Your task to perform on an android device: add a label to a message in the gmail app Image 0: 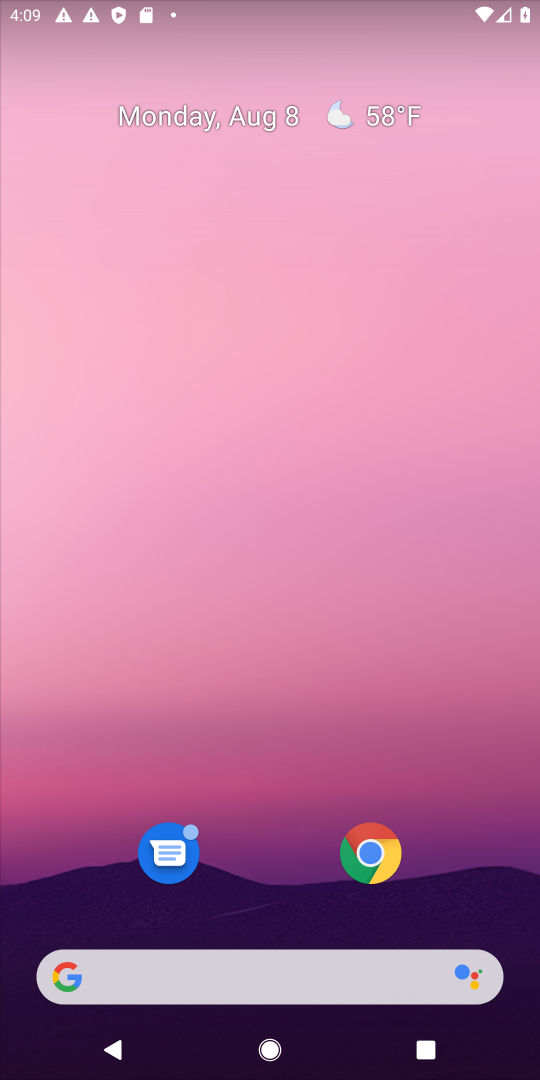
Step 0: drag from (473, 829) to (510, 24)
Your task to perform on an android device: add a label to a message in the gmail app Image 1: 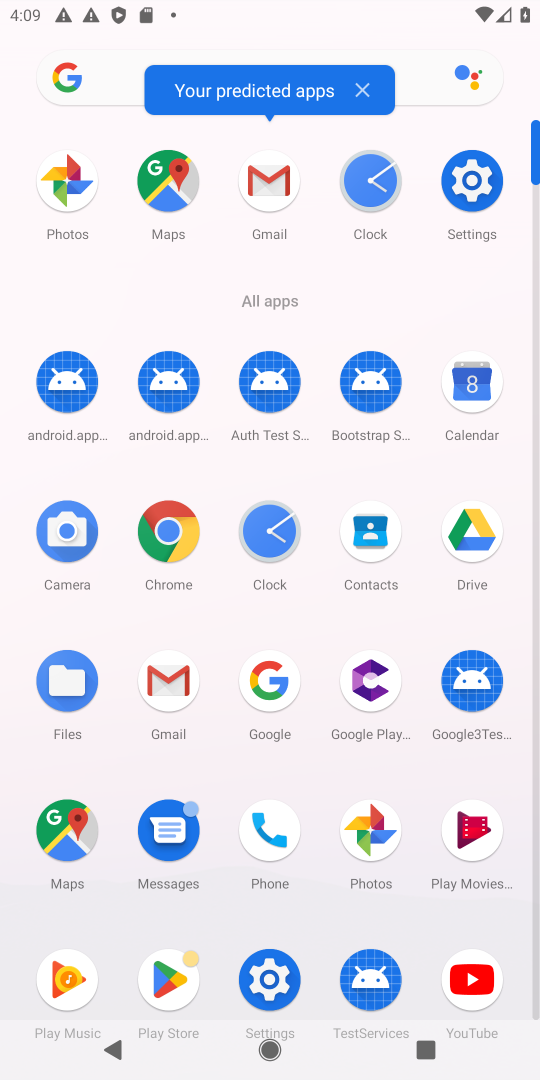
Step 1: click (160, 675)
Your task to perform on an android device: add a label to a message in the gmail app Image 2: 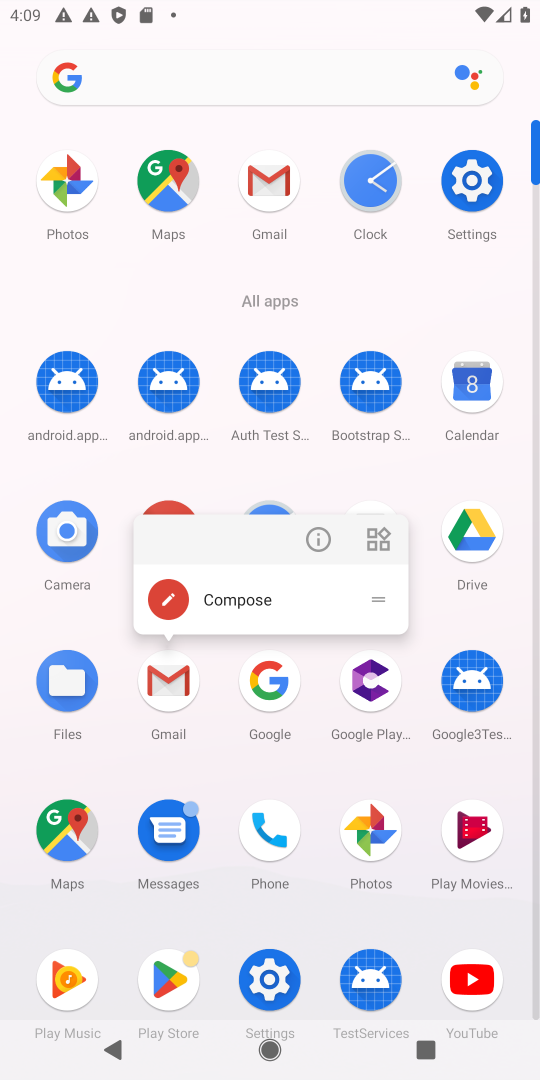
Step 2: click (180, 672)
Your task to perform on an android device: add a label to a message in the gmail app Image 3: 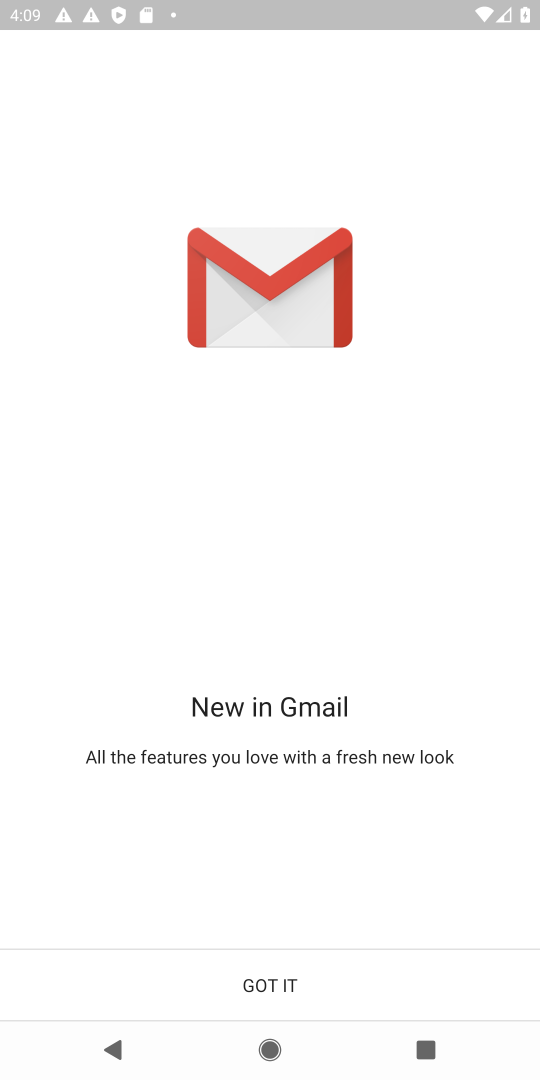
Step 3: click (288, 969)
Your task to perform on an android device: add a label to a message in the gmail app Image 4: 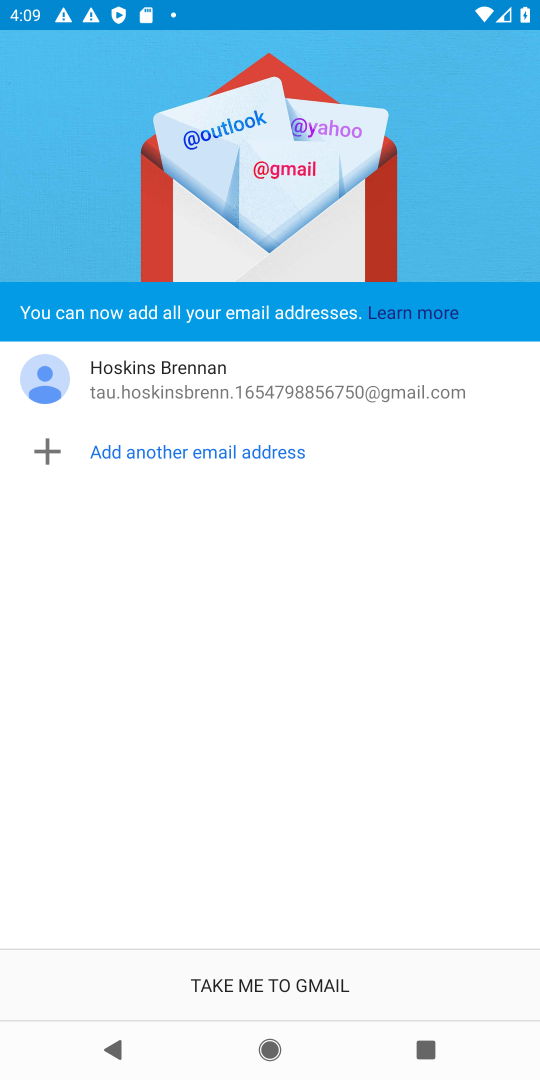
Step 4: click (288, 969)
Your task to perform on an android device: add a label to a message in the gmail app Image 5: 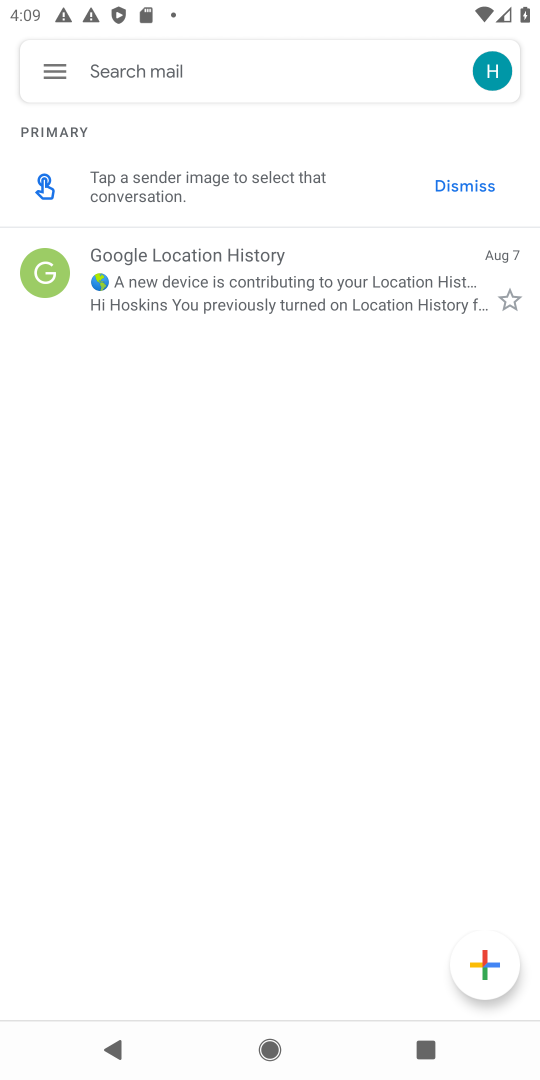
Step 5: task complete